Your task to perform on an android device: Open display settings Image 0: 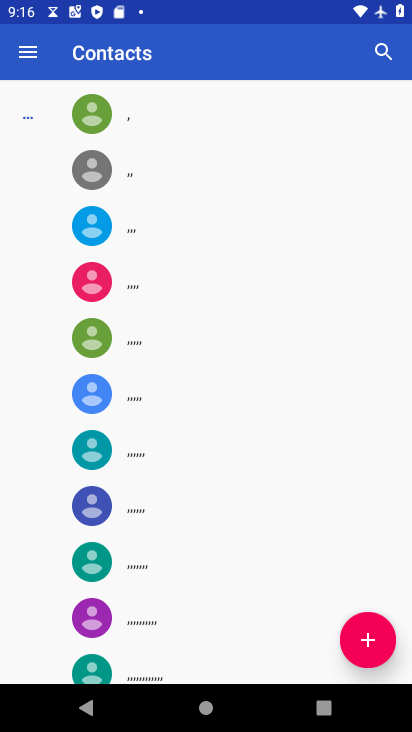
Step 0: press home button
Your task to perform on an android device: Open display settings Image 1: 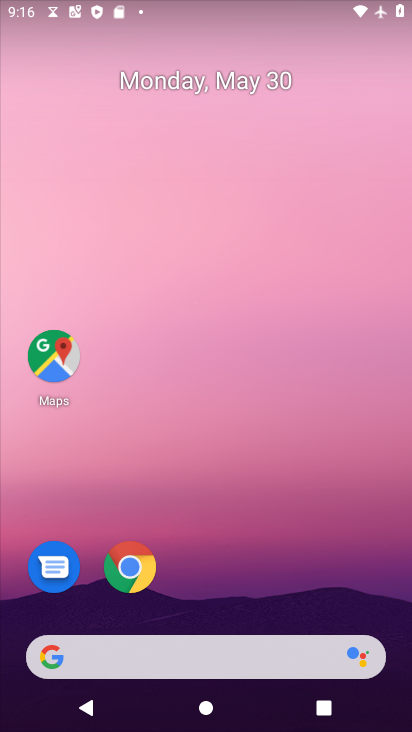
Step 1: drag from (232, 615) to (244, 110)
Your task to perform on an android device: Open display settings Image 2: 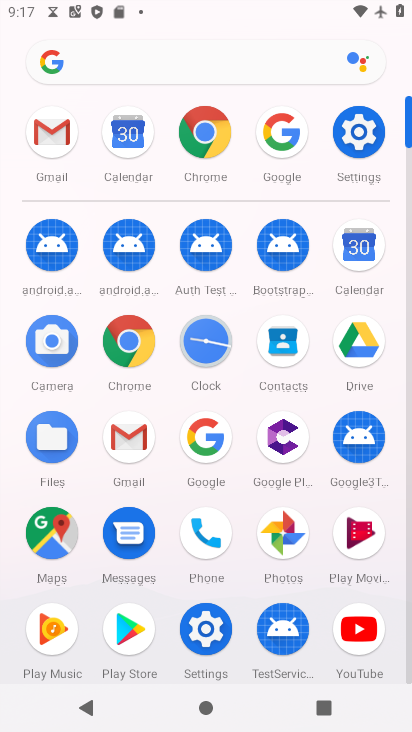
Step 2: click (356, 146)
Your task to perform on an android device: Open display settings Image 3: 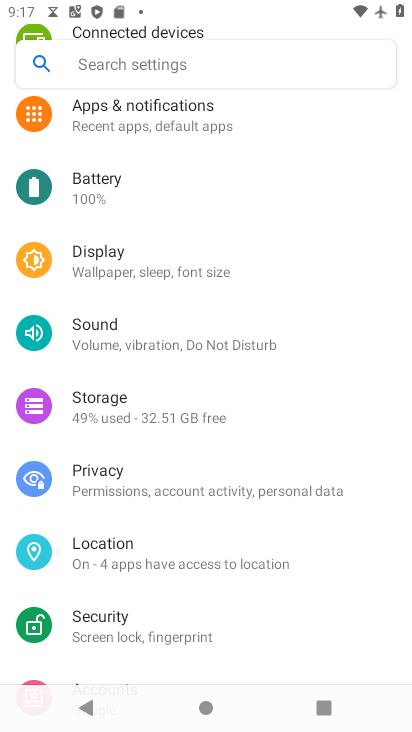
Step 3: click (264, 245)
Your task to perform on an android device: Open display settings Image 4: 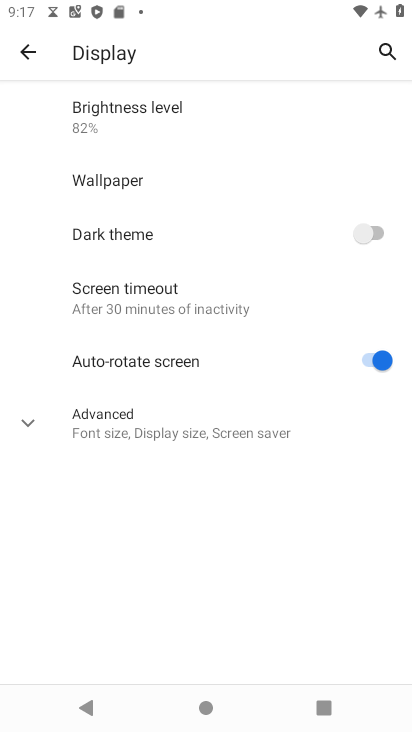
Step 4: task complete